Your task to perform on an android device: turn off wifi Image 0: 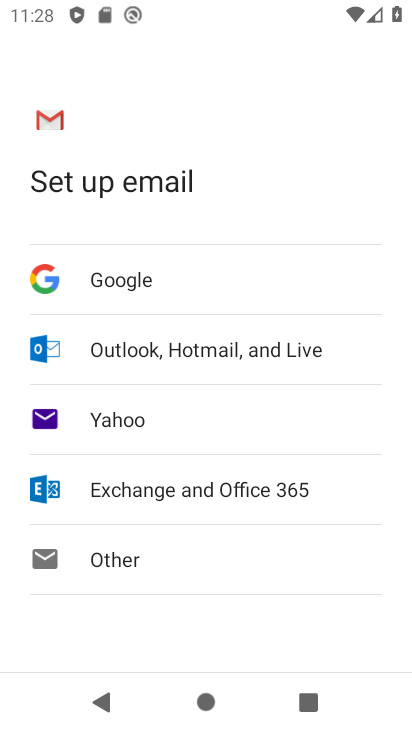
Step 0: press home button
Your task to perform on an android device: turn off wifi Image 1: 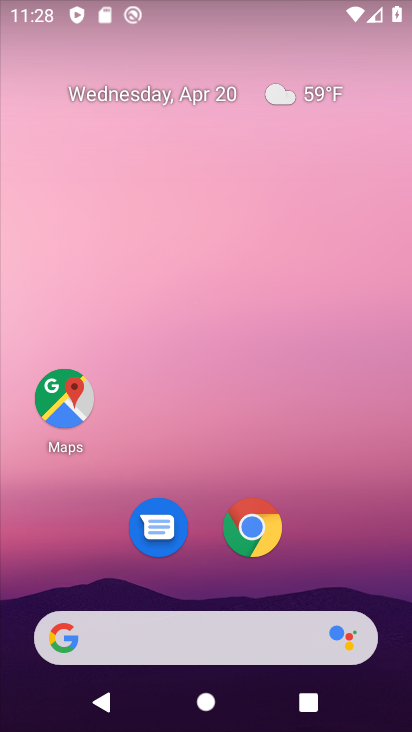
Step 1: drag from (346, 572) to (348, 189)
Your task to perform on an android device: turn off wifi Image 2: 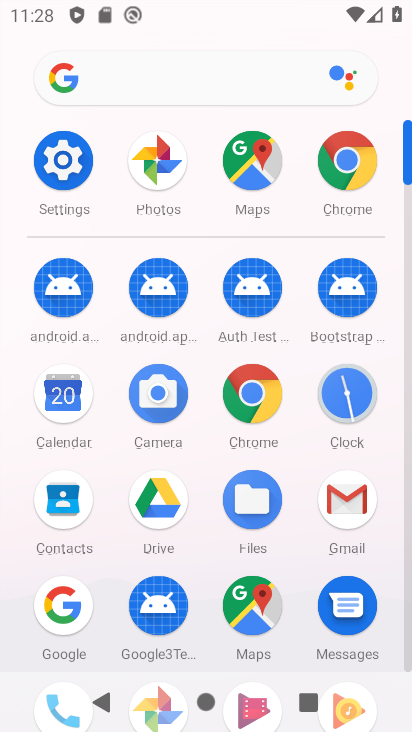
Step 2: click (57, 172)
Your task to perform on an android device: turn off wifi Image 3: 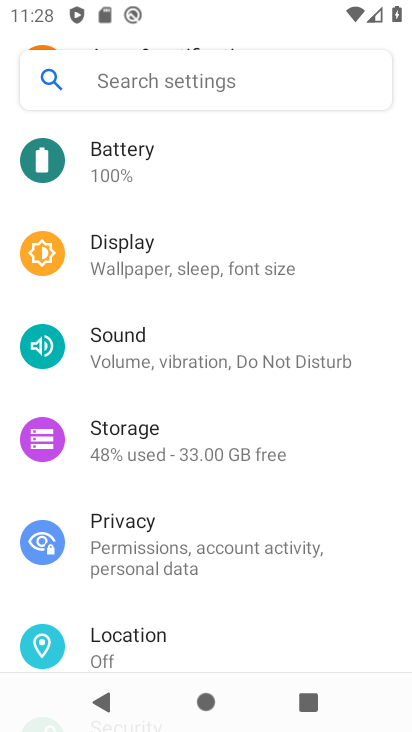
Step 3: drag from (329, 216) to (342, 537)
Your task to perform on an android device: turn off wifi Image 4: 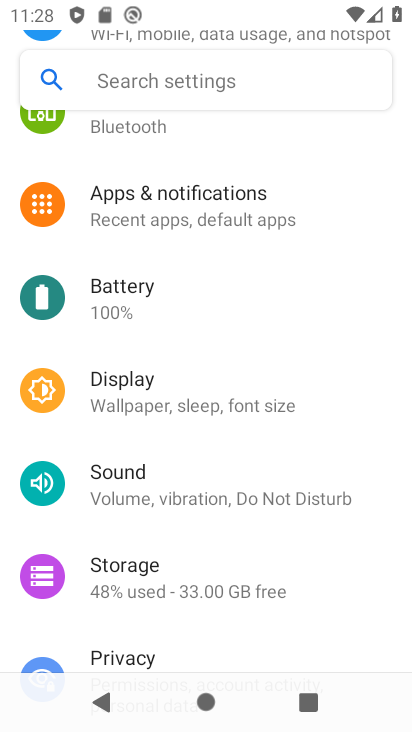
Step 4: drag from (347, 244) to (372, 637)
Your task to perform on an android device: turn off wifi Image 5: 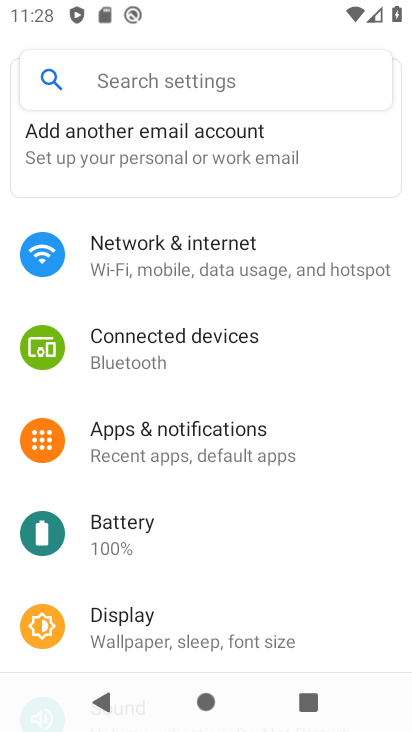
Step 5: click (267, 264)
Your task to perform on an android device: turn off wifi Image 6: 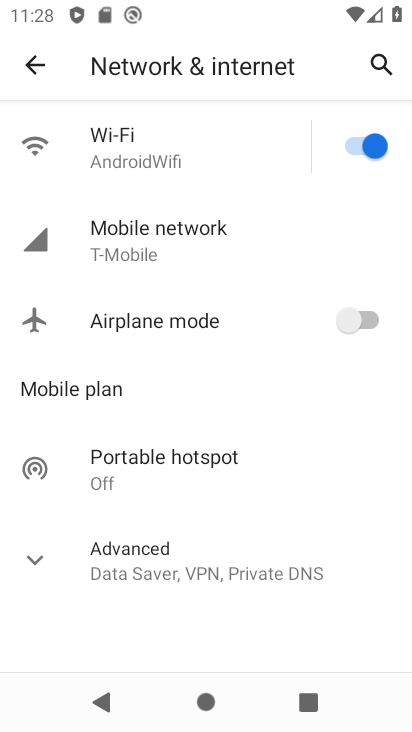
Step 6: click (357, 157)
Your task to perform on an android device: turn off wifi Image 7: 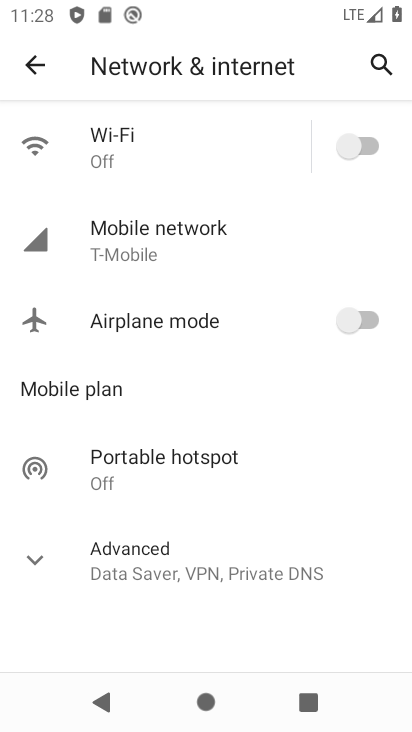
Step 7: task complete